Your task to perform on an android device: Do I have any events this weekend? Image 0: 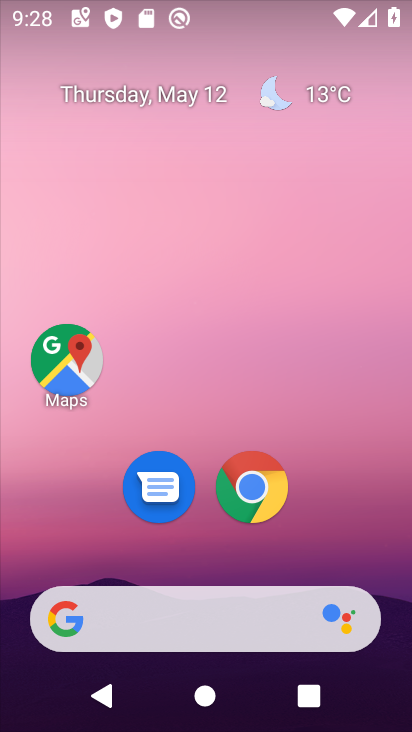
Step 0: click (207, 111)
Your task to perform on an android device: Do I have any events this weekend? Image 1: 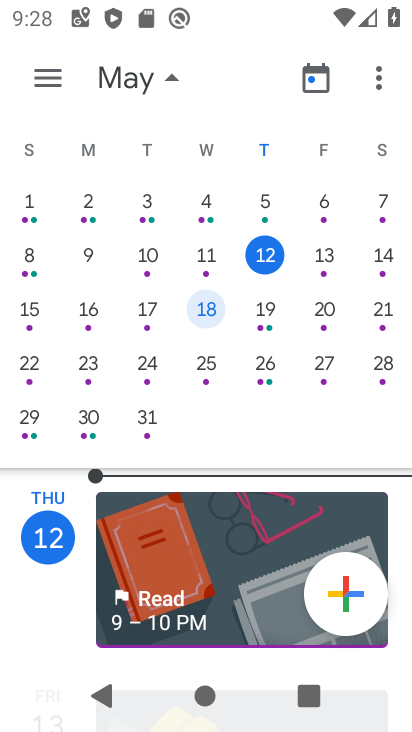
Step 1: click (376, 263)
Your task to perform on an android device: Do I have any events this weekend? Image 2: 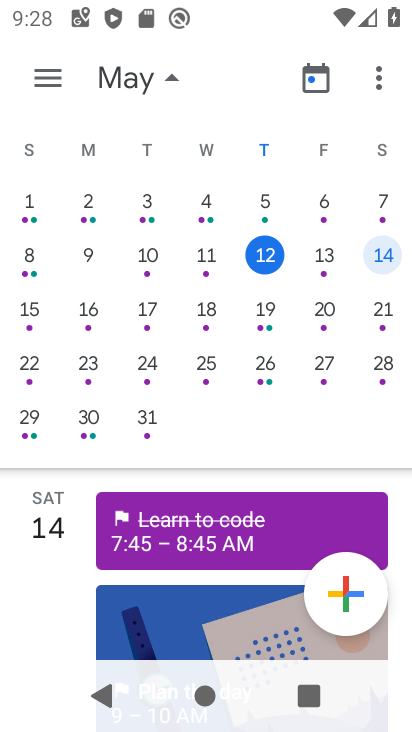
Step 2: click (190, 510)
Your task to perform on an android device: Do I have any events this weekend? Image 3: 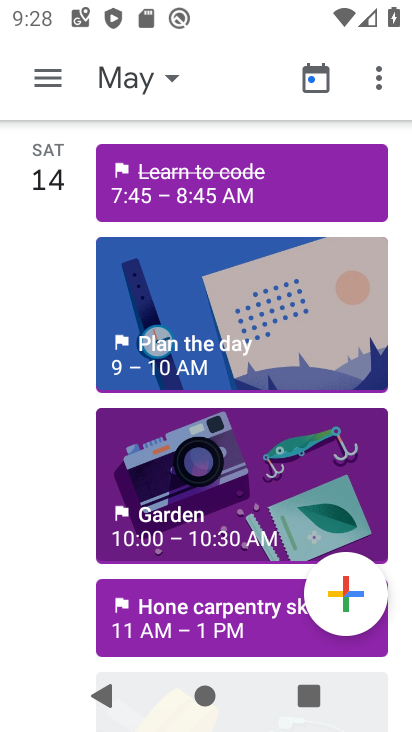
Step 3: task complete